Your task to perform on an android device: turn on airplane mode Image 0: 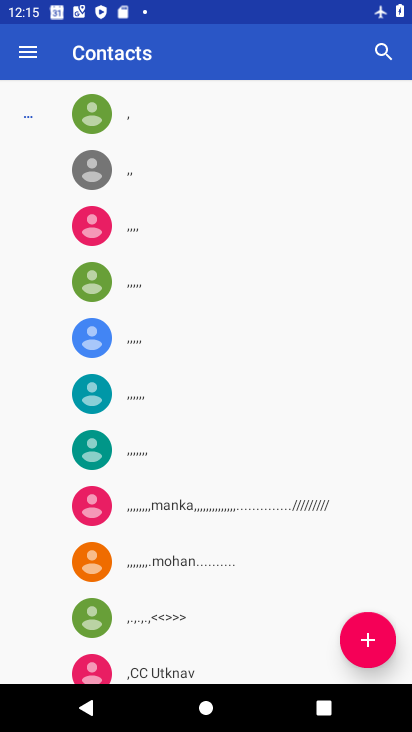
Step 0: press home button
Your task to perform on an android device: turn on airplane mode Image 1: 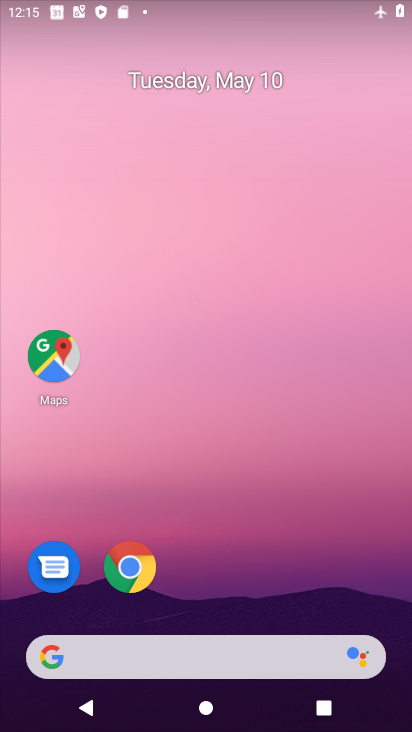
Step 1: task complete